Your task to perform on an android device: See recent photos Image 0: 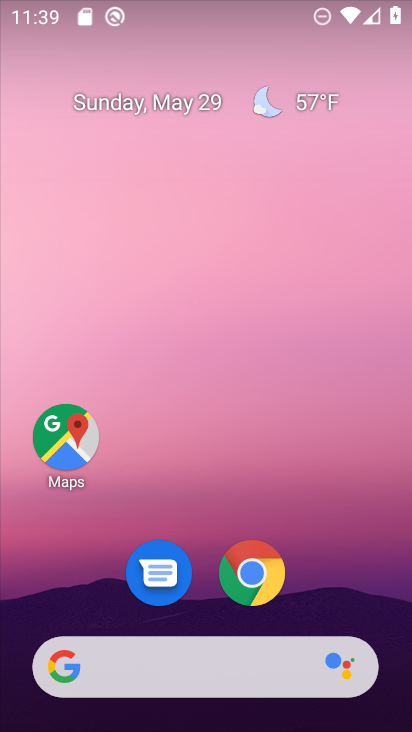
Step 0: drag from (303, 630) to (398, 38)
Your task to perform on an android device: See recent photos Image 1: 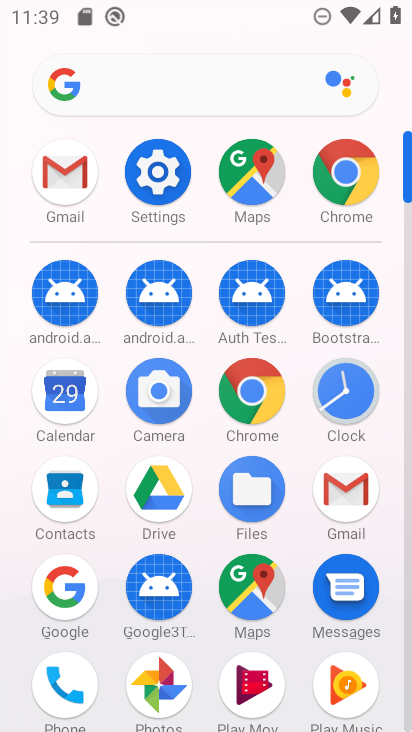
Step 1: click (155, 678)
Your task to perform on an android device: See recent photos Image 2: 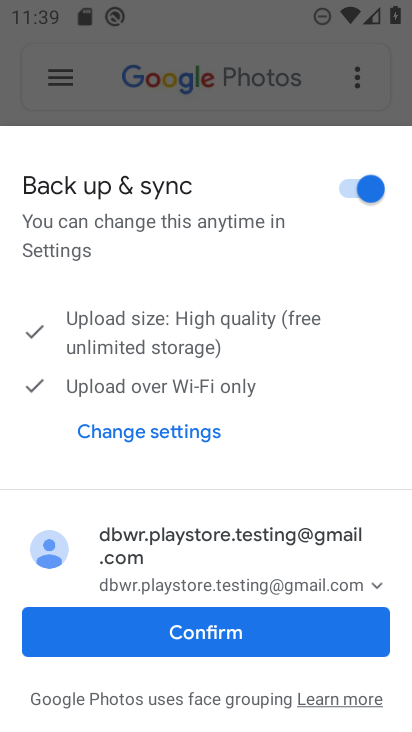
Step 2: click (266, 642)
Your task to perform on an android device: See recent photos Image 3: 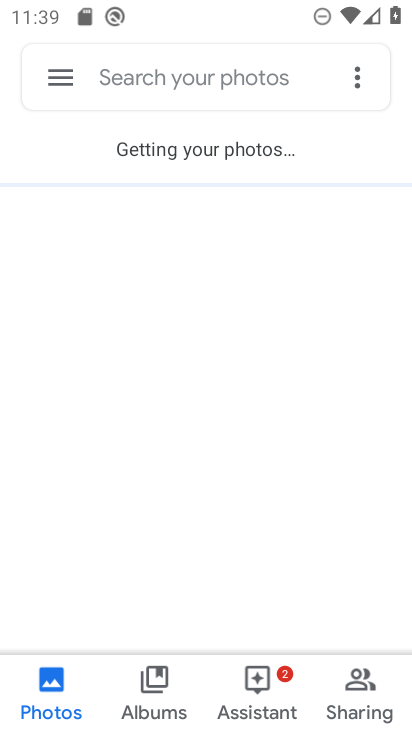
Step 3: task complete